Your task to perform on an android device: Open the stopwatch Image 0: 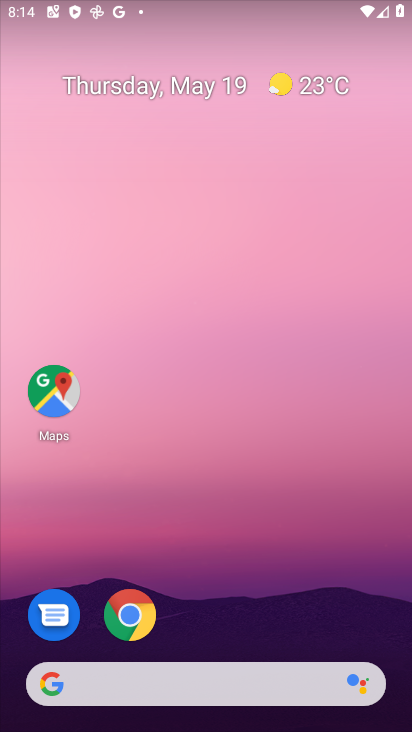
Step 0: drag from (307, 652) to (164, 3)
Your task to perform on an android device: Open the stopwatch Image 1: 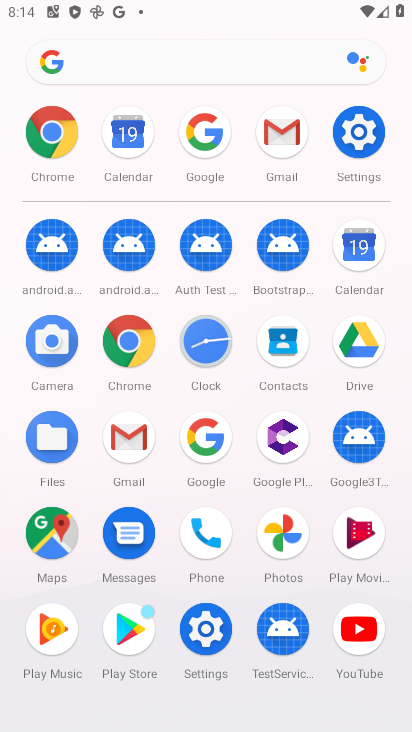
Step 1: click (205, 363)
Your task to perform on an android device: Open the stopwatch Image 2: 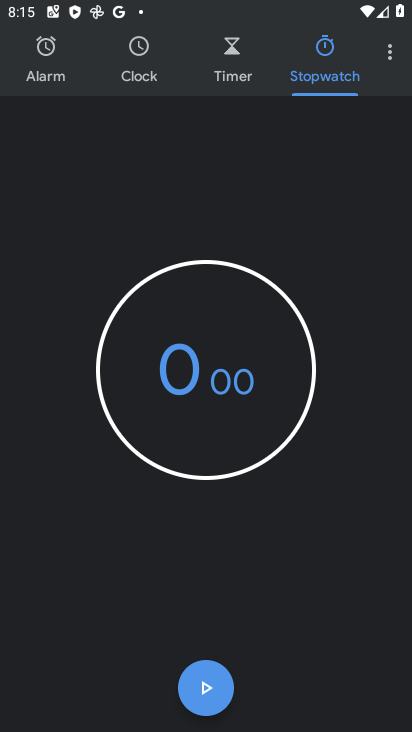
Step 2: task complete